Your task to perform on an android device: change alarm snooze length Image 0: 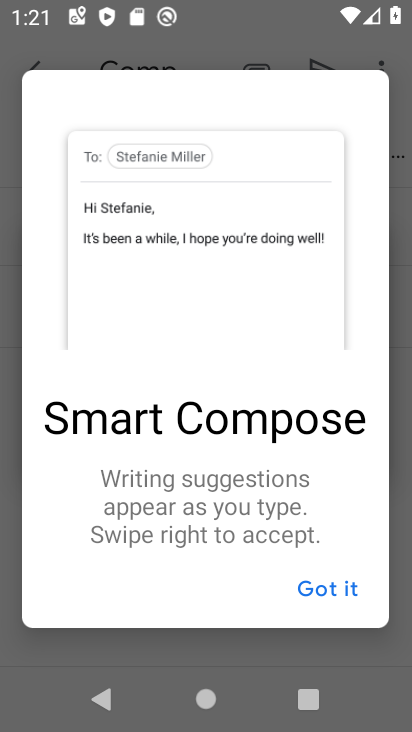
Step 0: press home button
Your task to perform on an android device: change alarm snooze length Image 1: 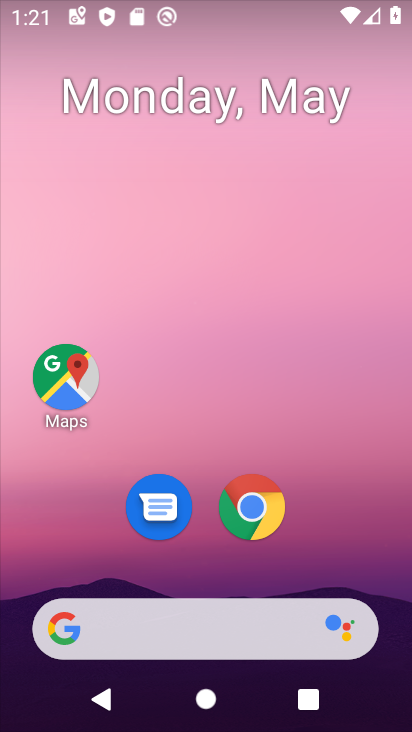
Step 1: drag from (222, 721) to (231, 108)
Your task to perform on an android device: change alarm snooze length Image 2: 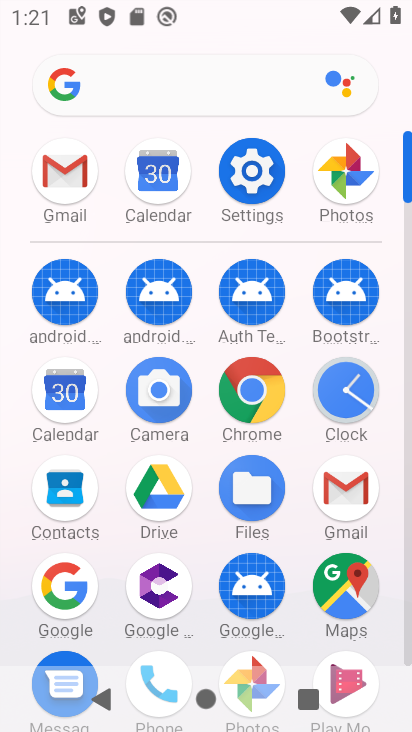
Step 2: click (343, 396)
Your task to perform on an android device: change alarm snooze length Image 3: 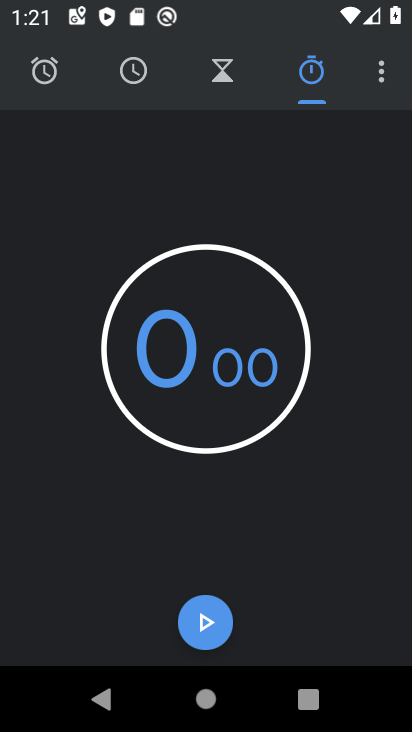
Step 3: click (382, 78)
Your task to perform on an android device: change alarm snooze length Image 4: 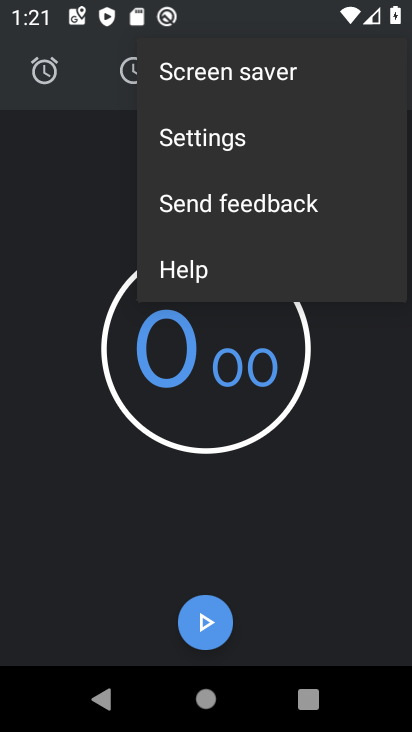
Step 4: click (188, 134)
Your task to perform on an android device: change alarm snooze length Image 5: 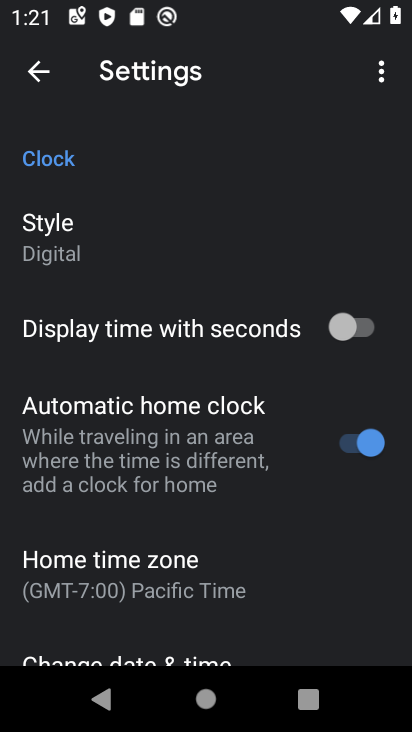
Step 5: drag from (131, 634) to (136, 161)
Your task to perform on an android device: change alarm snooze length Image 6: 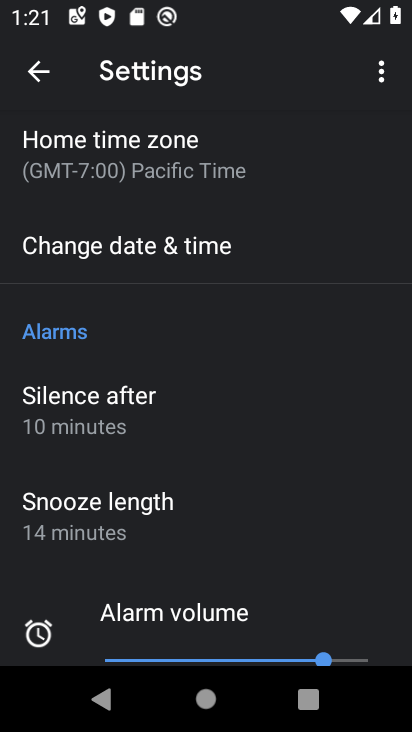
Step 6: drag from (101, 404) to (110, 113)
Your task to perform on an android device: change alarm snooze length Image 7: 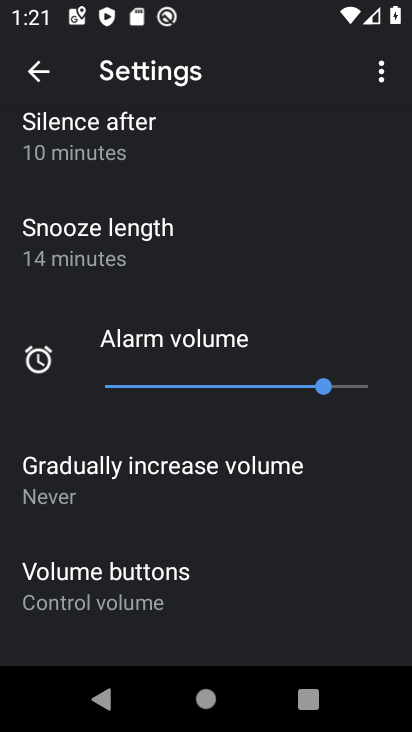
Step 7: click (75, 236)
Your task to perform on an android device: change alarm snooze length Image 8: 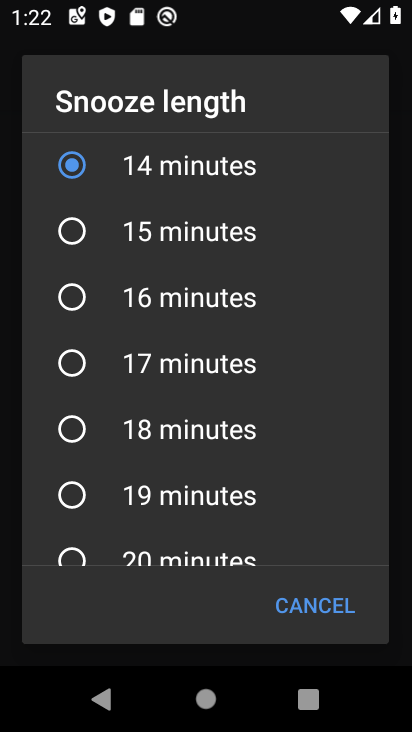
Step 8: click (76, 497)
Your task to perform on an android device: change alarm snooze length Image 9: 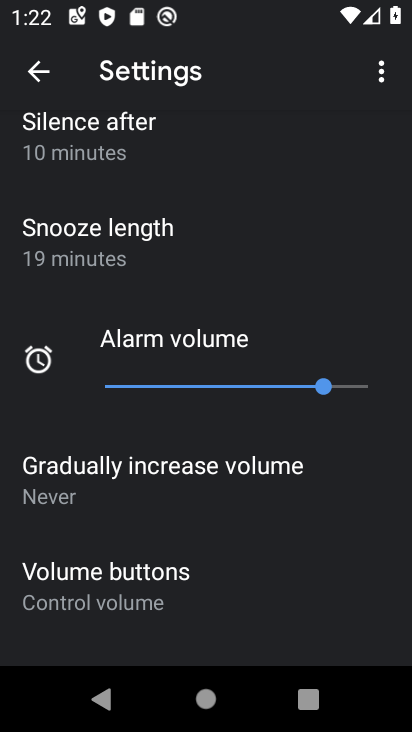
Step 9: task complete